Your task to perform on an android device: open a bookmark in the chrome app Image 0: 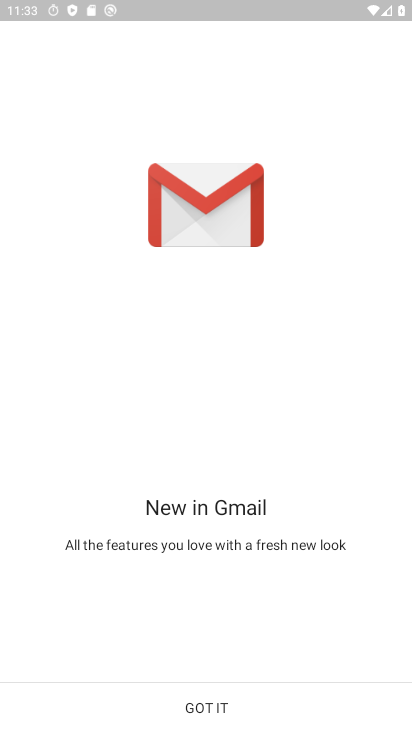
Step 0: press home button
Your task to perform on an android device: open a bookmark in the chrome app Image 1: 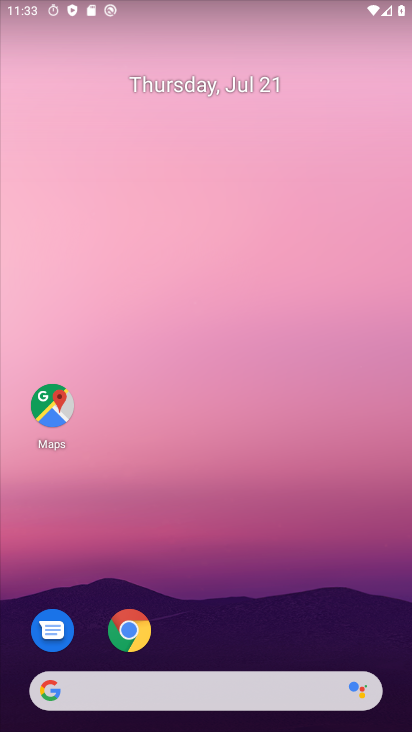
Step 1: click (118, 629)
Your task to perform on an android device: open a bookmark in the chrome app Image 2: 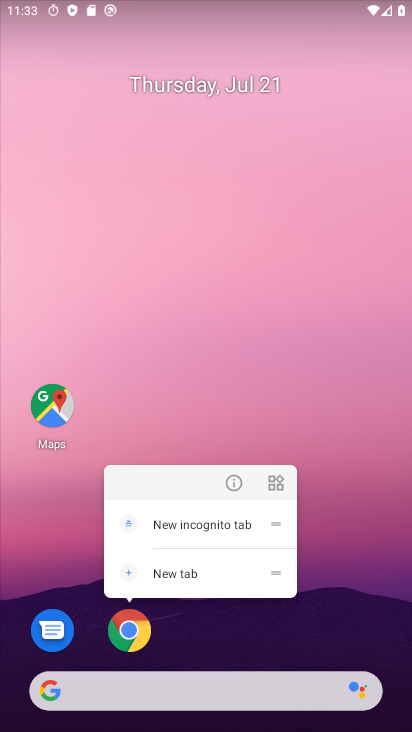
Step 2: click (133, 636)
Your task to perform on an android device: open a bookmark in the chrome app Image 3: 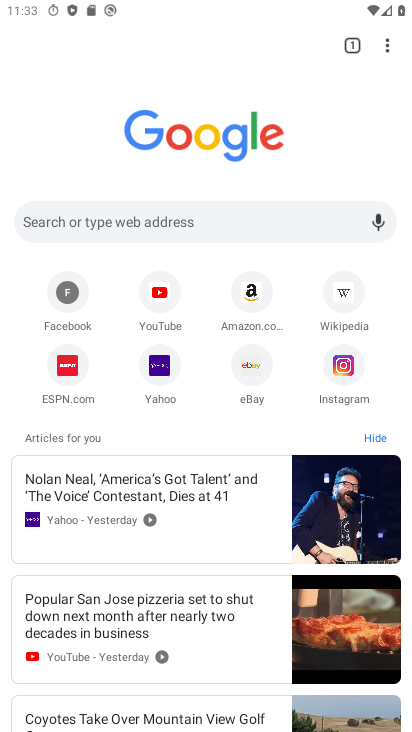
Step 3: click (389, 45)
Your task to perform on an android device: open a bookmark in the chrome app Image 4: 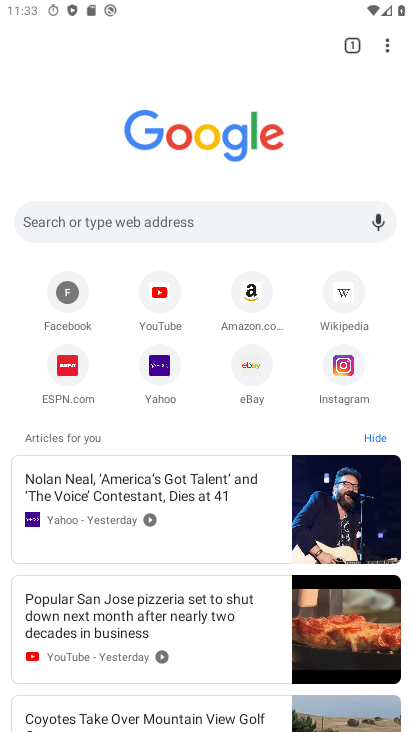
Step 4: click (385, 43)
Your task to perform on an android device: open a bookmark in the chrome app Image 5: 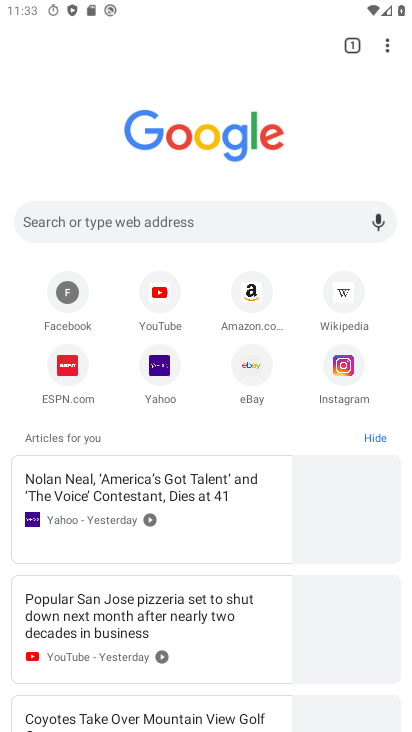
Step 5: click (262, 225)
Your task to perform on an android device: open a bookmark in the chrome app Image 6: 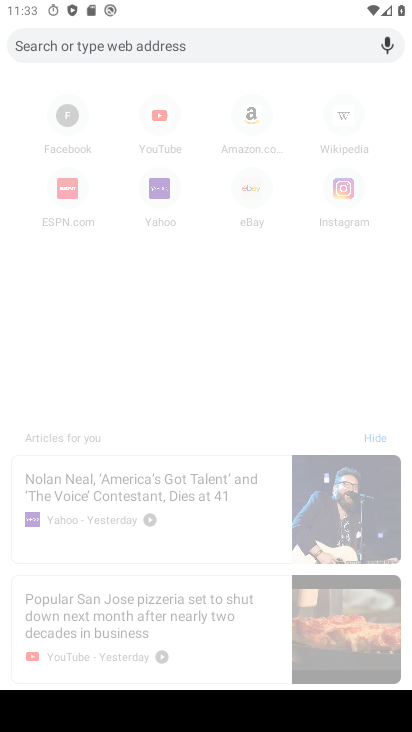
Step 6: press back button
Your task to perform on an android device: open a bookmark in the chrome app Image 7: 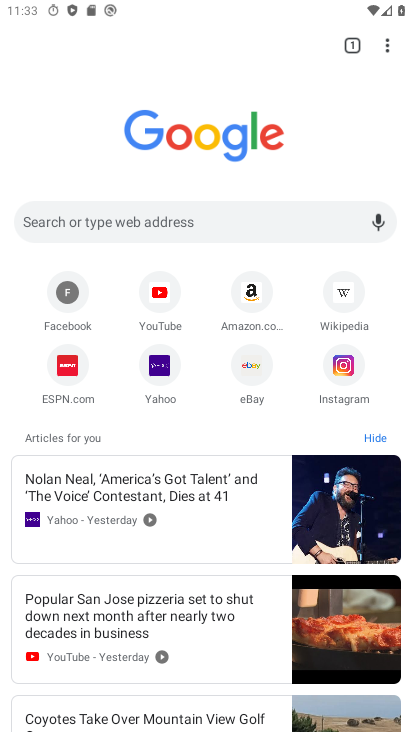
Step 7: click (378, 45)
Your task to perform on an android device: open a bookmark in the chrome app Image 8: 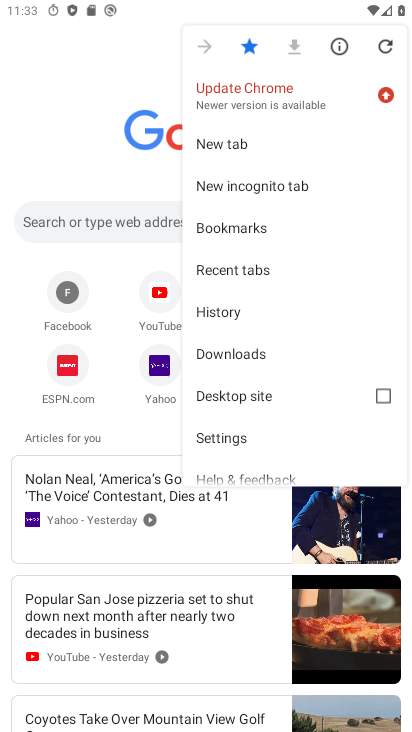
Step 8: click (252, 231)
Your task to perform on an android device: open a bookmark in the chrome app Image 9: 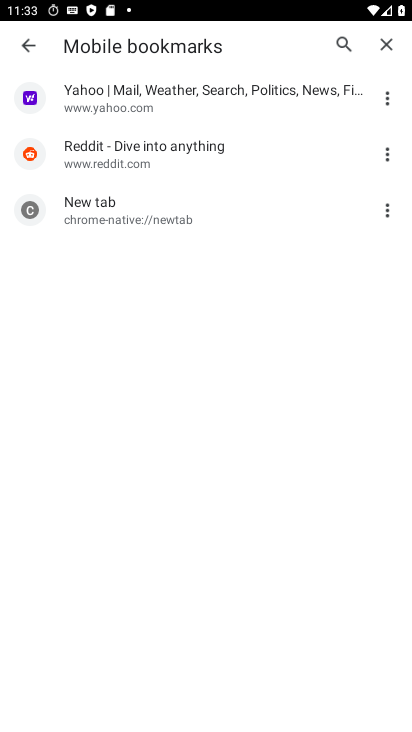
Step 9: task complete